Your task to perform on an android device: Go to Maps Image 0: 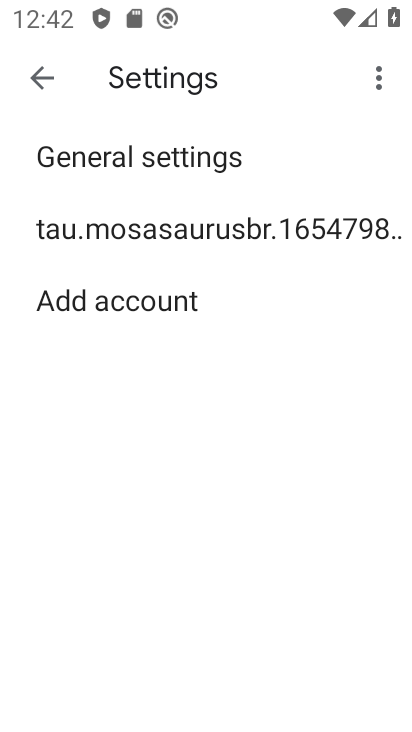
Step 0: press home button
Your task to perform on an android device: Go to Maps Image 1: 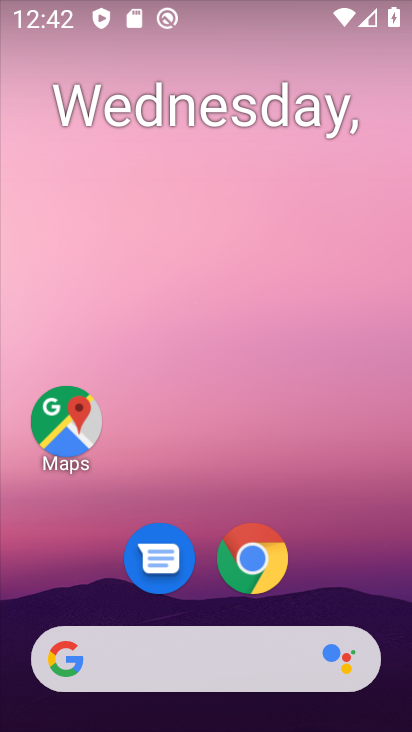
Step 1: click (59, 434)
Your task to perform on an android device: Go to Maps Image 2: 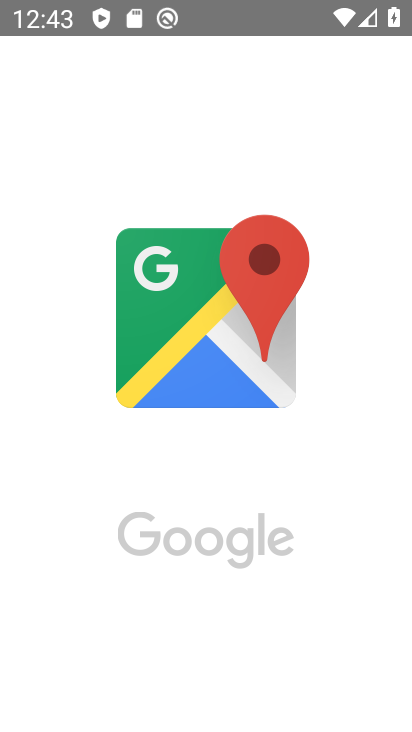
Step 2: task complete